Your task to perform on an android device: Search for Mexican restaurants on Maps Image 0: 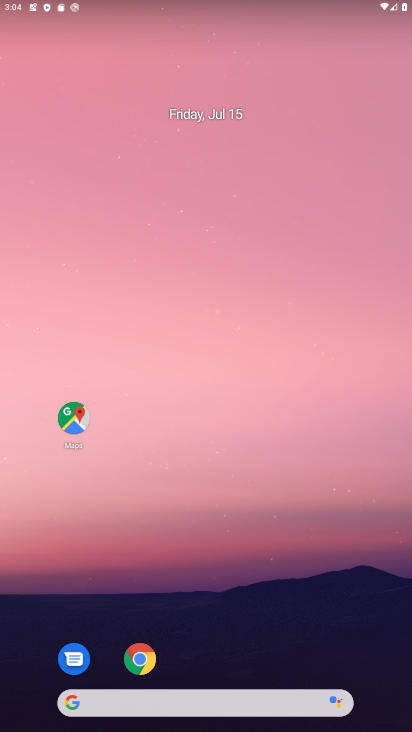
Step 0: click (78, 420)
Your task to perform on an android device: Search for Mexican restaurants on Maps Image 1: 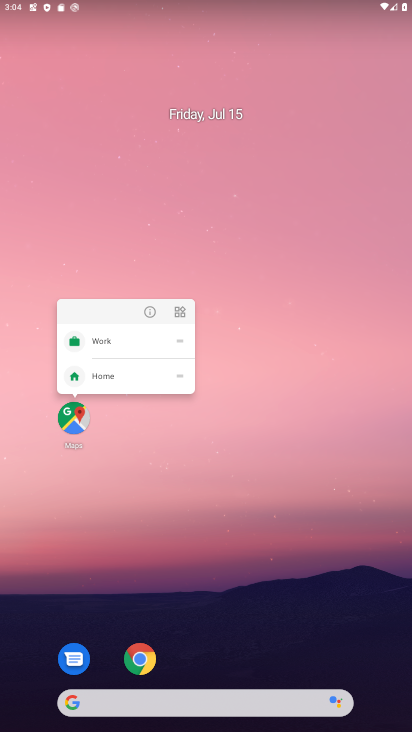
Step 1: click (94, 701)
Your task to perform on an android device: Search for Mexican restaurants on Maps Image 2: 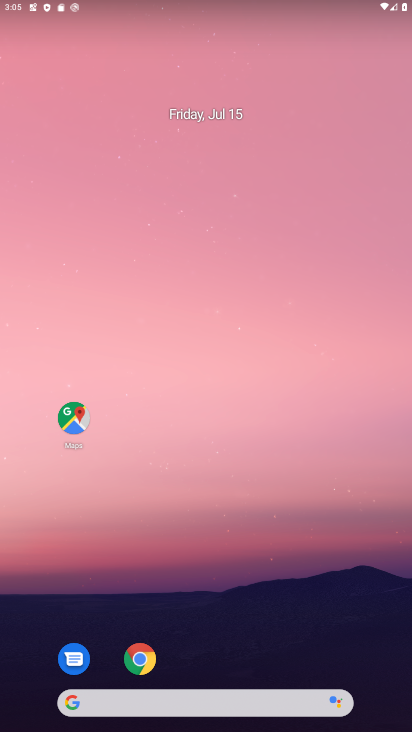
Step 2: click (101, 703)
Your task to perform on an android device: Search for Mexican restaurants on Maps Image 3: 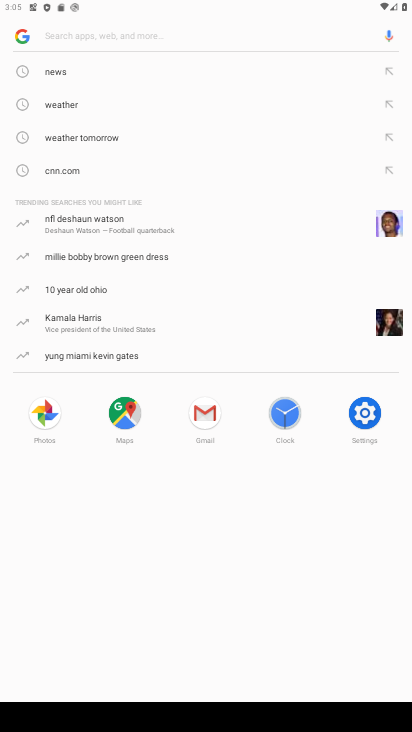
Step 3: click (67, 30)
Your task to perform on an android device: Search for Mexican restaurants on Maps Image 4: 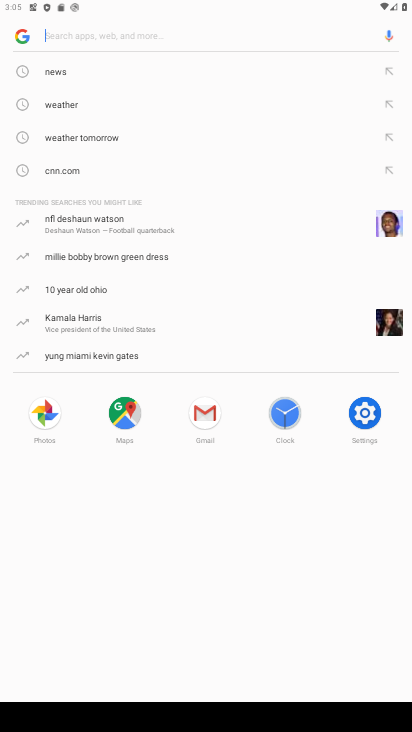
Step 4: type "Mexican restaurants"
Your task to perform on an android device: Search for Mexican restaurants on Maps Image 5: 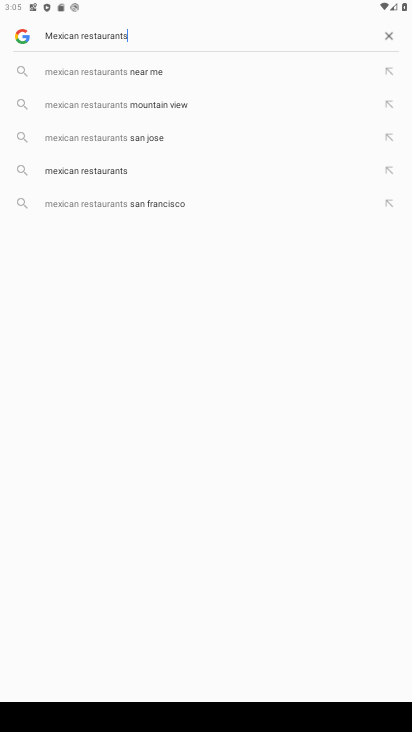
Step 5: type ""
Your task to perform on an android device: Search for Mexican restaurants on Maps Image 6: 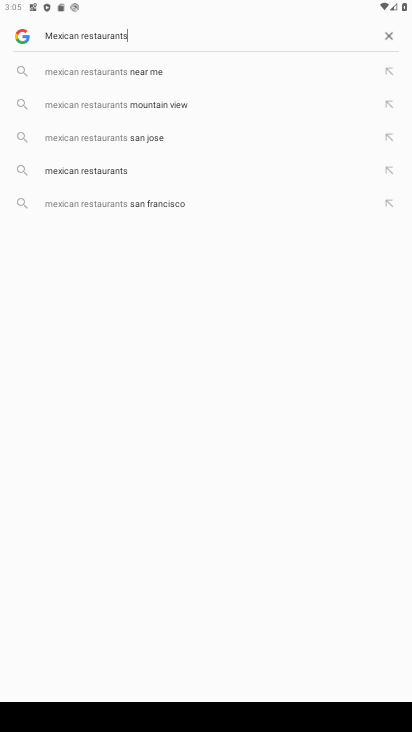
Step 6: type ""
Your task to perform on an android device: Search for Mexican restaurants on Maps Image 7: 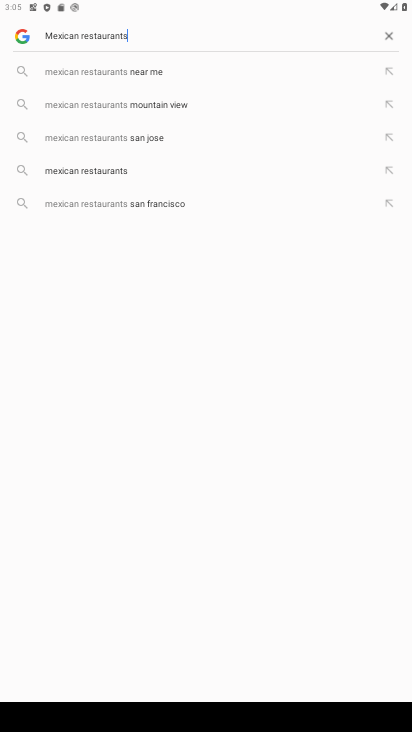
Step 7: type ""
Your task to perform on an android device: Search for Mexican restaurants on Maps Image 8: 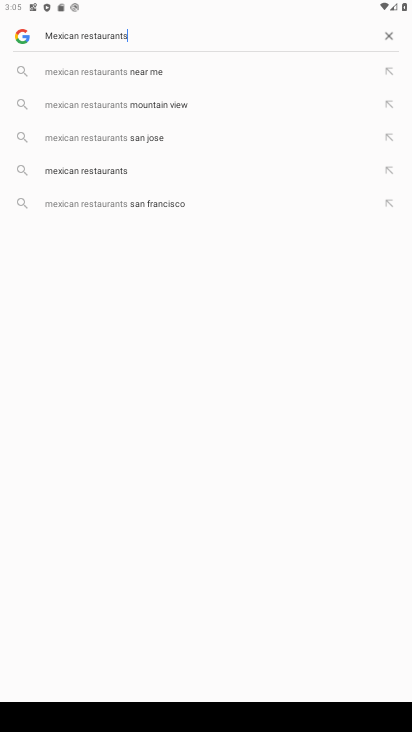
Step 8: task complete